Your task to perform on an android device: snooze an email in the gmail app Image 0: 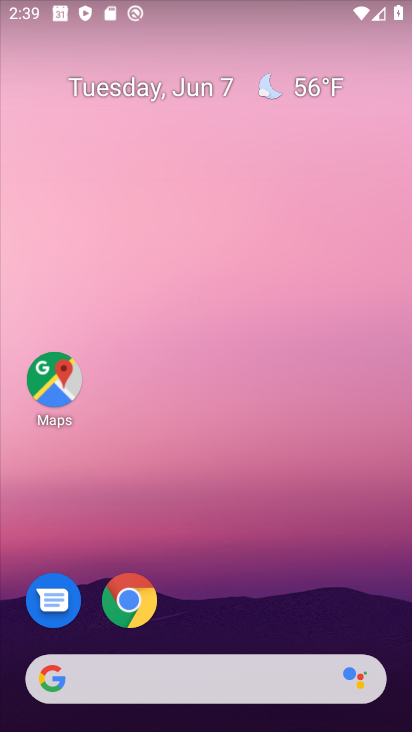
Step 0: drag from (402, 679) to (375, 208)
Your task to perform on an android device: snooze an email in the gmail app Image 1: 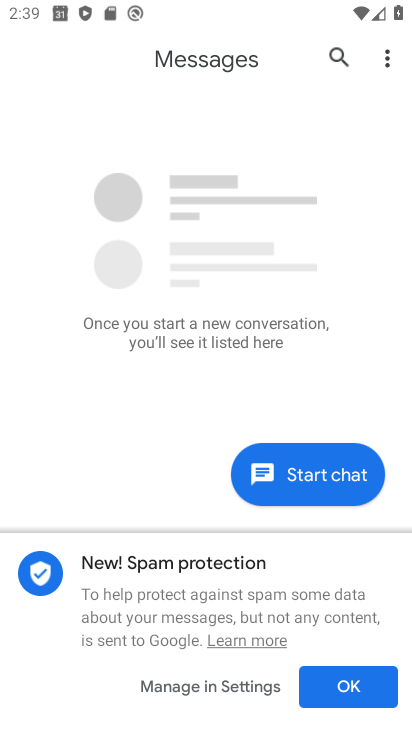
Step 1: press back button
Your task to perform on an android device: snooze an email in the gmail app Image 2: 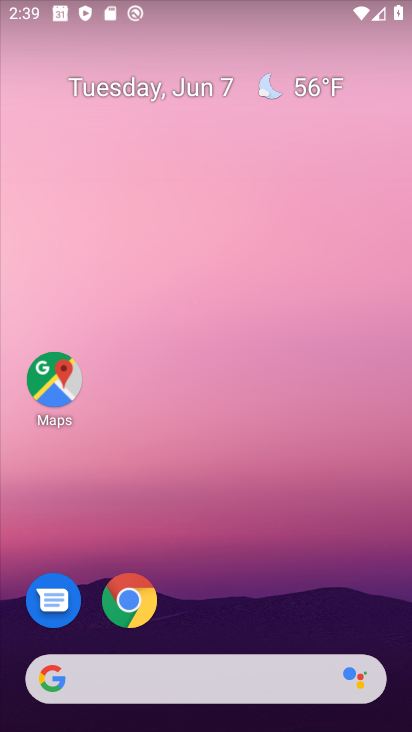
Step 2: drag from (394, 683) to (388, 170)
Your task to perform on an android device: snooze an email in the gmail app Image 3: 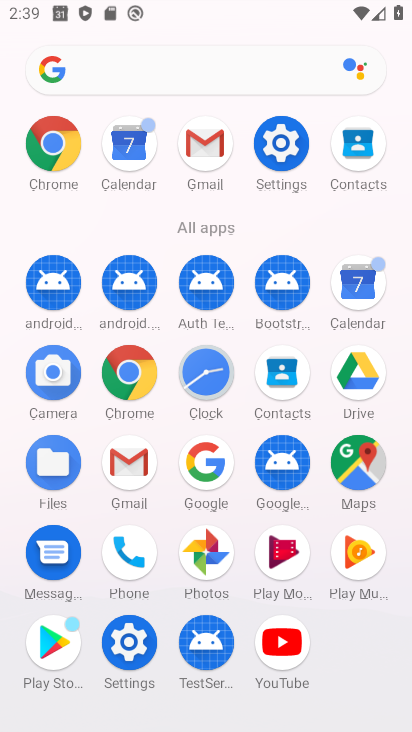
Step 3: click (134, 453)
Your task to perform on an android device: snooze an email in the gmail app Image 4: 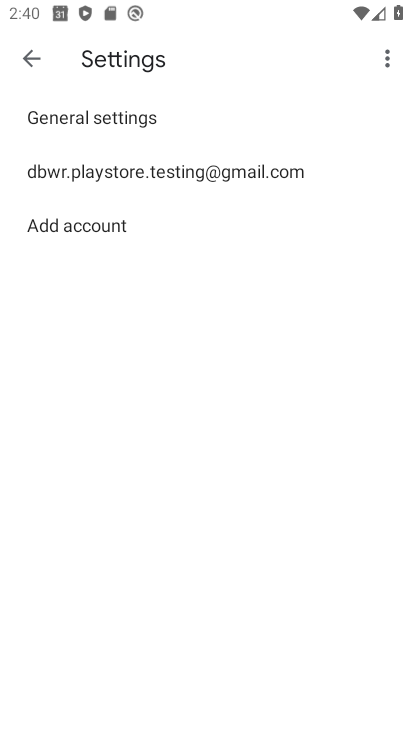
Step 4: click (33, 56)
Your task to perform on an android device: snooze an email in the gmail app Image 5: 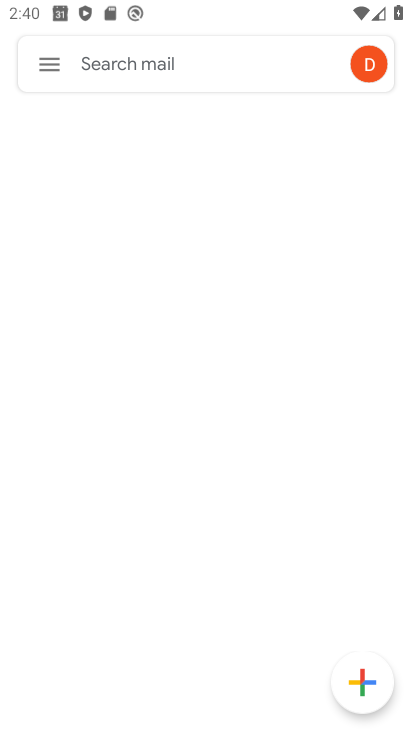
Step 5: click (33, 56)
Your task to perform on an android device: snooze an email in the gmail app Image 6: 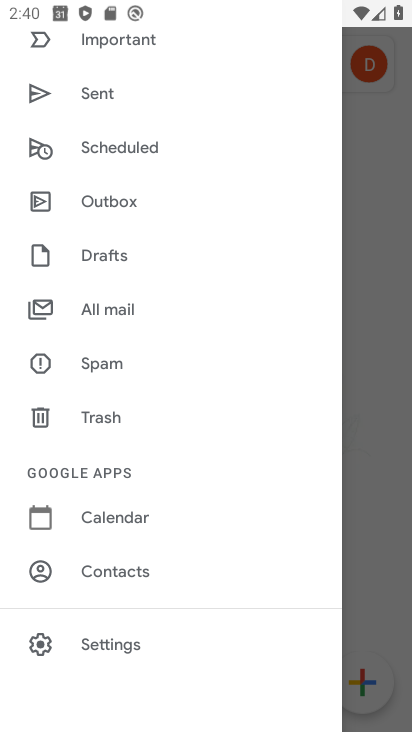
Step 6: drag from (176, 98) to (219, 489)
Your task to perform on an android device: snooze an email in the gmail app Image 7: 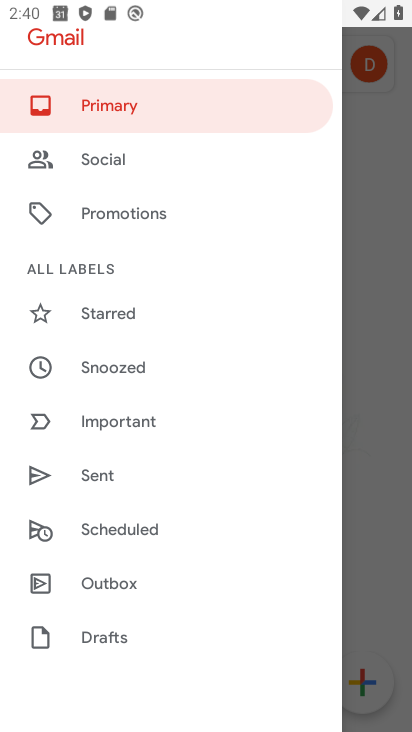
Step 7: click (110, 111)
Your task to perform on an android device: snooze an email in the gmail app Image 8: 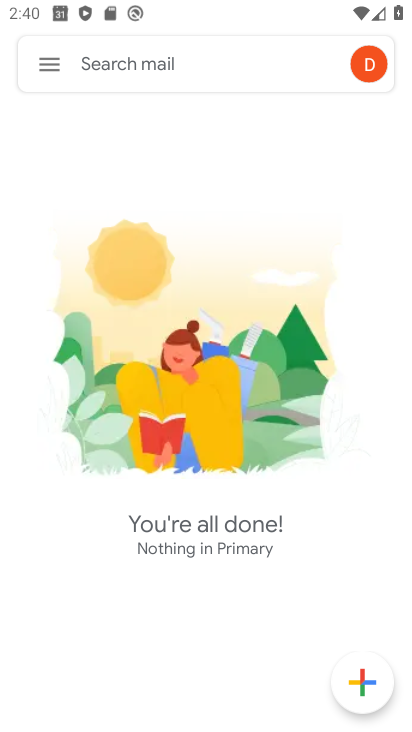
Step 8: task complete